Your task to perform on an android device: Go to location settings Image 0: 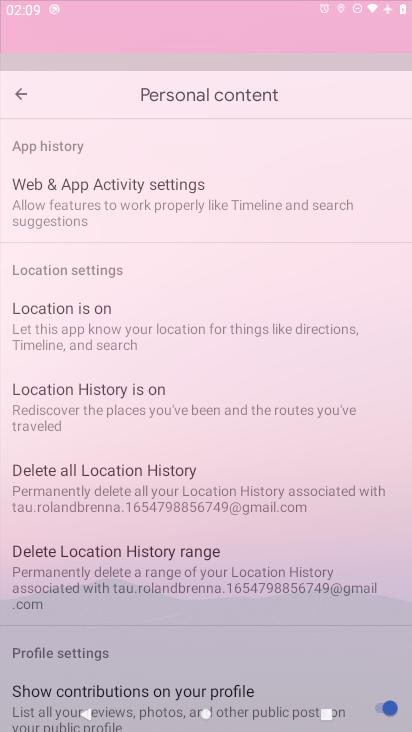
Step 0: press home button
Your task to perform on an android device: Go to location settings Image 1: 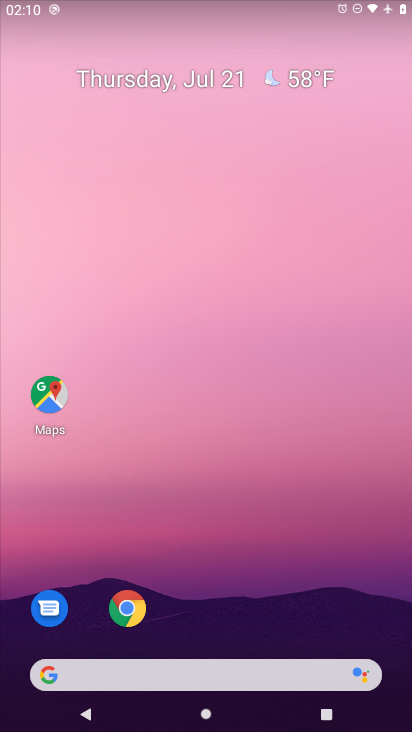
Step 1: drag from (248, 486) to (297, 20)
Your task to perform on an android device: Go to location settings Image 2: 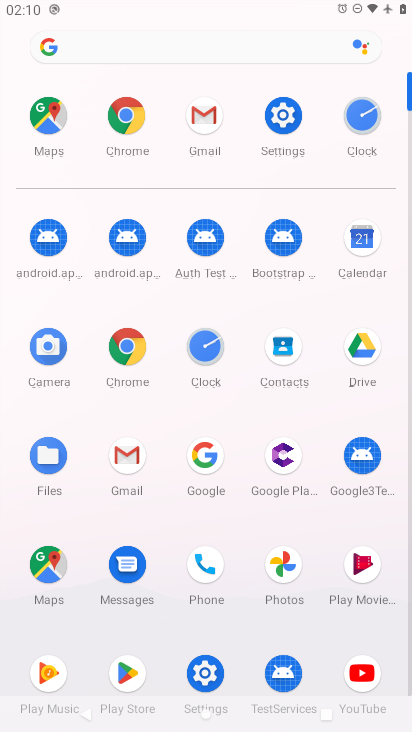
Step 2: click (279, 123)
Your task to perform on an android device: Go to location settings Image 3: 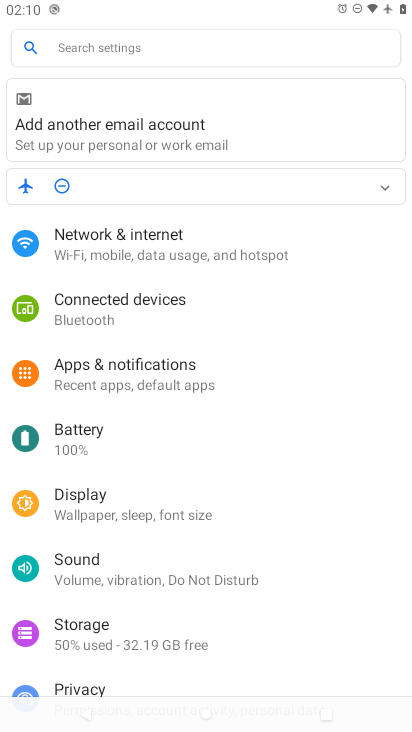
Step 3: drag from (375, 601) to (391, 0)
Your task to perform on an android device: Go to location settings Image 4: 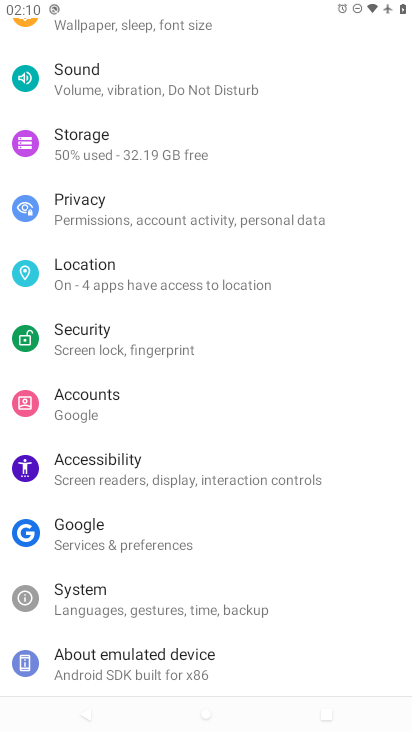
Step 4: click (99, 266)
Your task to perform on an android device: Go to location settings Image 5: 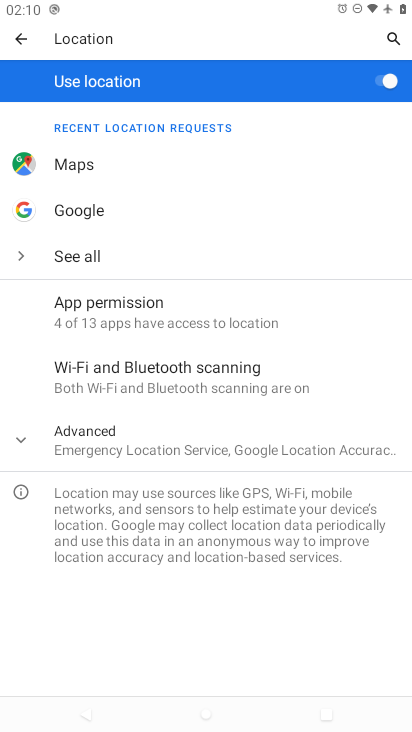
Step 5: task complete